Your task to perform on an android device: find which apps use the phone's location Image 0: 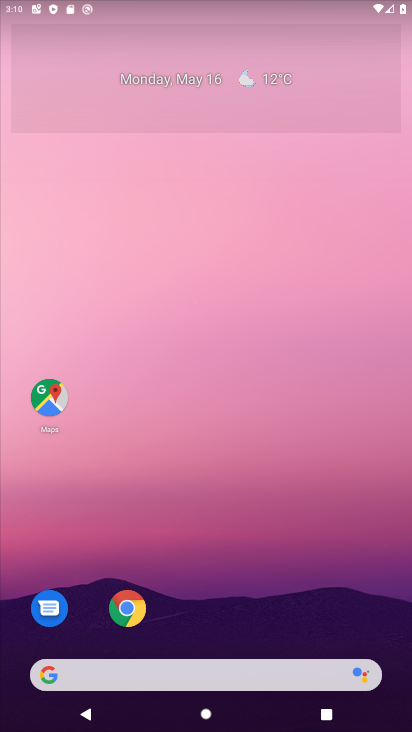
Step 0: drag from (169, 608) to (247, 145)
Your task to perform on an android device: find which apps use the phone's location Image 1: 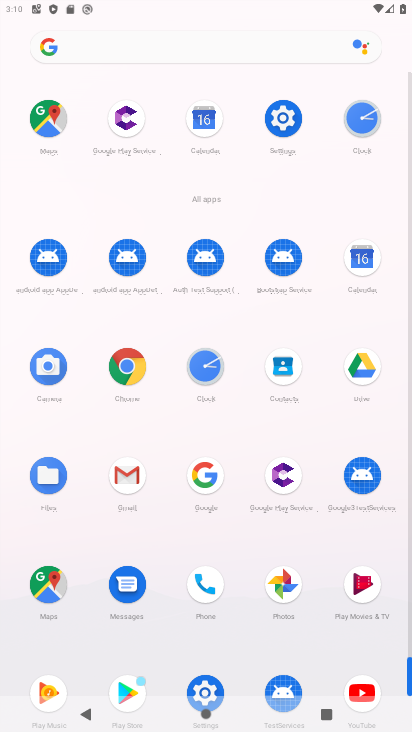
Step 1: click (199, 682)
Your task to perform on an android device: find which apps use the phone's location Image 2: 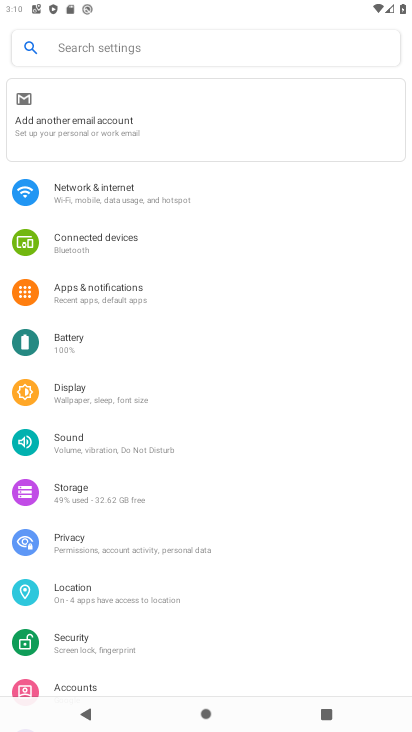
Step 2: drag from (129, 642) to (182, 293)
Your task to perform on an android device: find which apps use the phone's location Image 3: 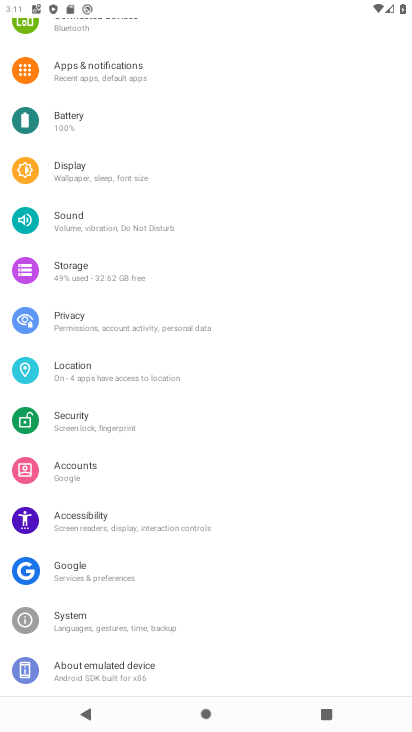
Step 3: drag from (117, 135) to (175, 597)
Your task to perform on an android device: find which apps use the phone's location Image 4: 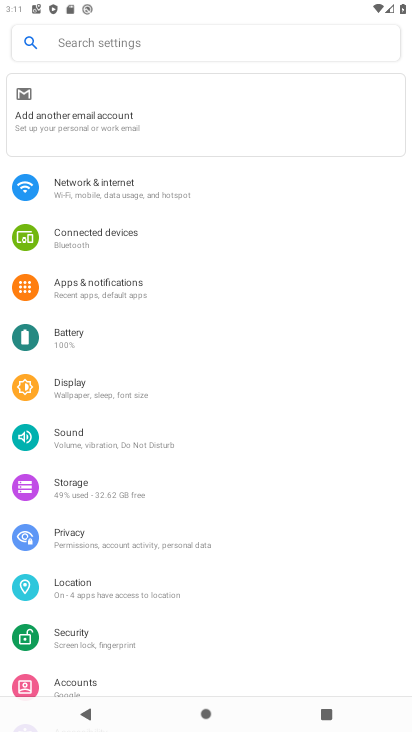
Step 4: click (111, 584)
Your task to perform on an android device: find which apps use the phone's location Image 5: 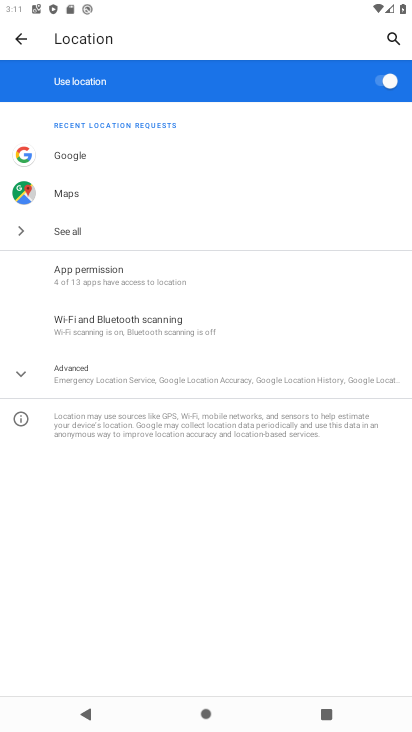
Step 5: click (169, 158)
Your task to perform on an android device: find which apps use the phone's location Image 6: 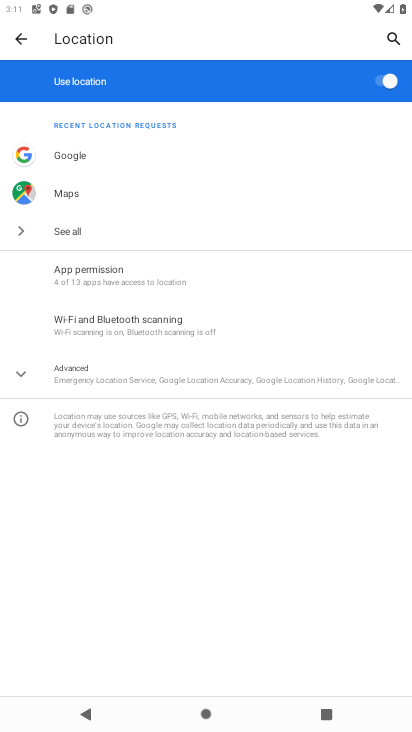
Step 6: task complete